Your task to perform on an android device: delete the emails in spam in the gmail app Image 0: 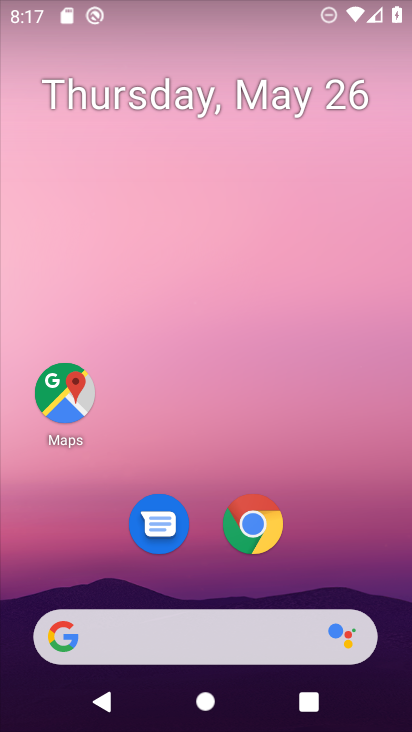
Step 0: drag from (253, 419) to (266, 32)
Your task to perform on an android device: delete the emails in spam in the gmail app Image 1: 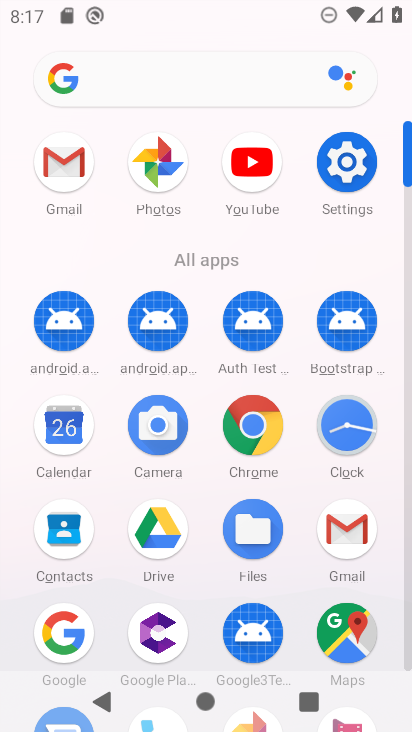
Step 1: click (70, 166)
Your task to perform on an android device: delete the emails in spam in the gmail app Image 2: 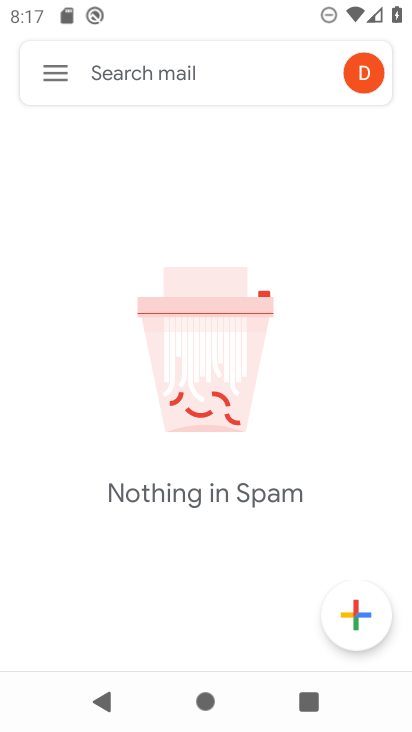
Step 2: task complete